Your task to perform on an android device: change the clock display to digital Image 0: 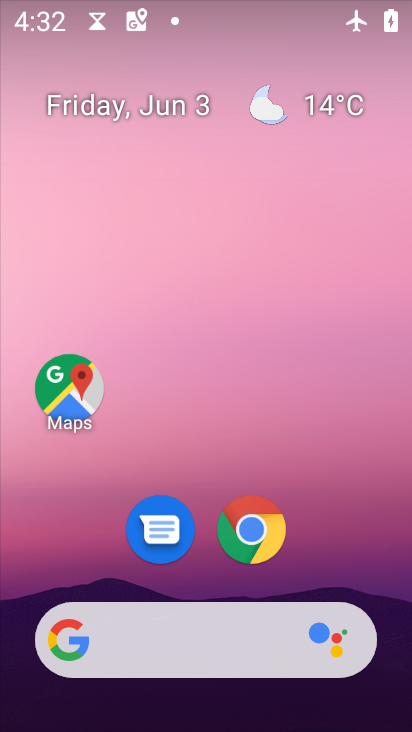
Step 0: drag from (336, 584) to (391, 58)
Your task to perform on an android device: change the clock display to digital Image 1: 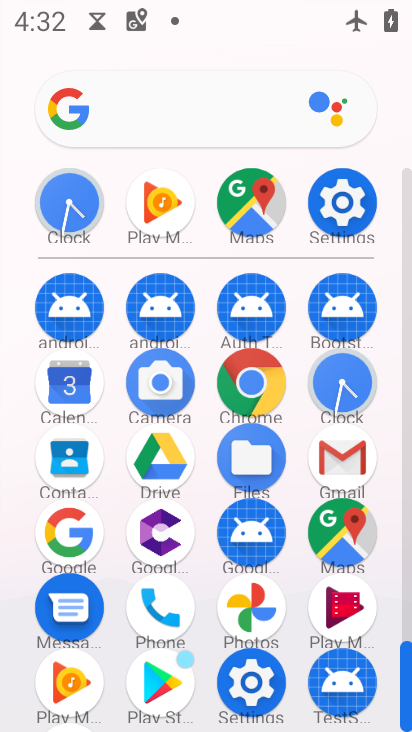
Step 1: click (344, 417)
Your task to perform on an android device: change the clock display to digital Image 2: 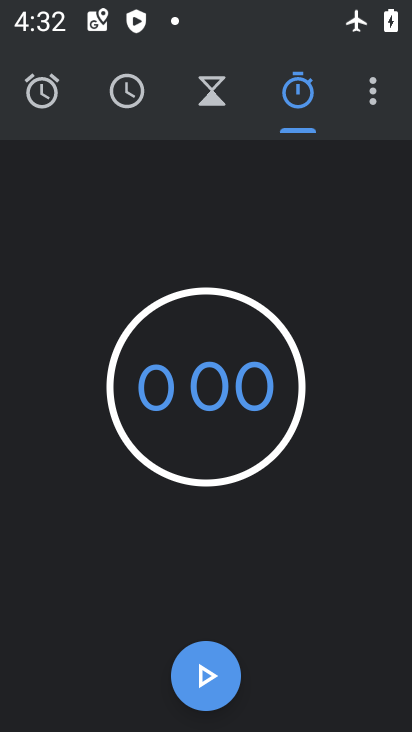
Step 2: click (366, 103)
Your task to perform on an android device: change the clock display to digital Image 3: 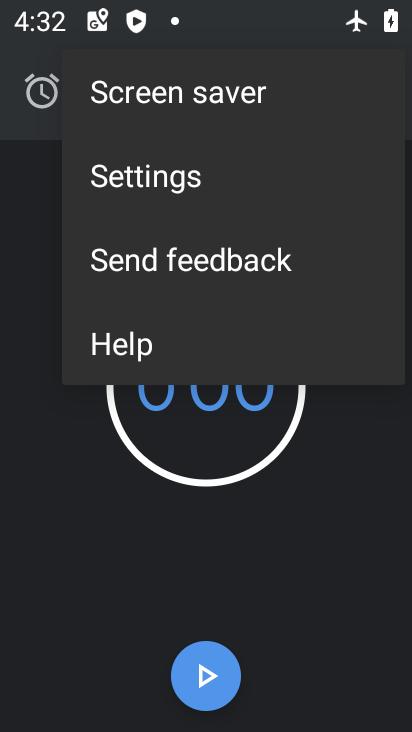
Step 3: click (170, 172)
Your task to perform on an android device: change the clock display to digital Image 4: 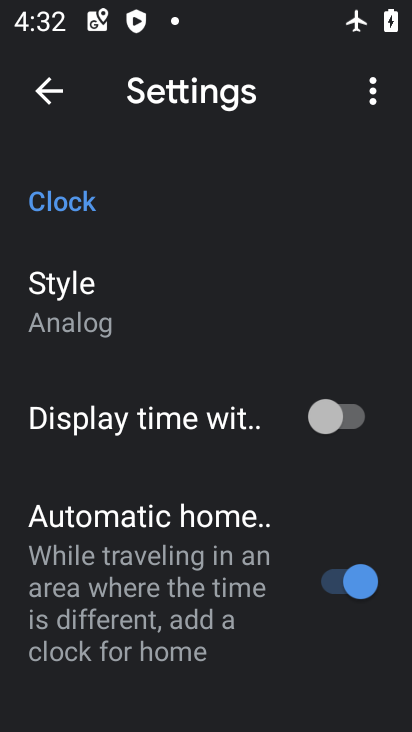
Step 4: click (135, 320)
Your task to perform on an android device: change the clock display to digital Image 5: 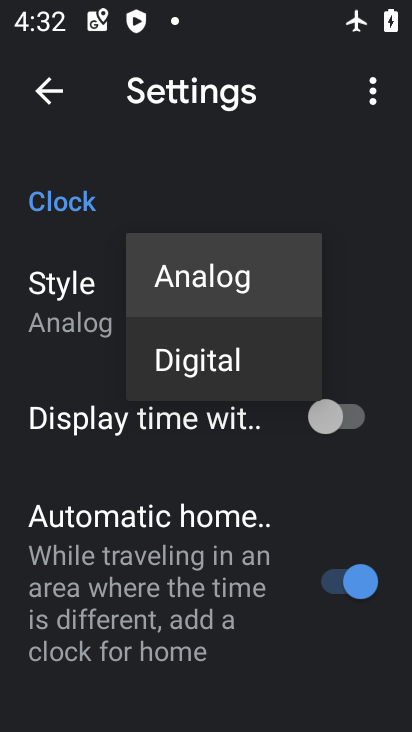
Step 5: click (209, 356)
Your task to perform on an android device: change the clock display to digital Image 6: 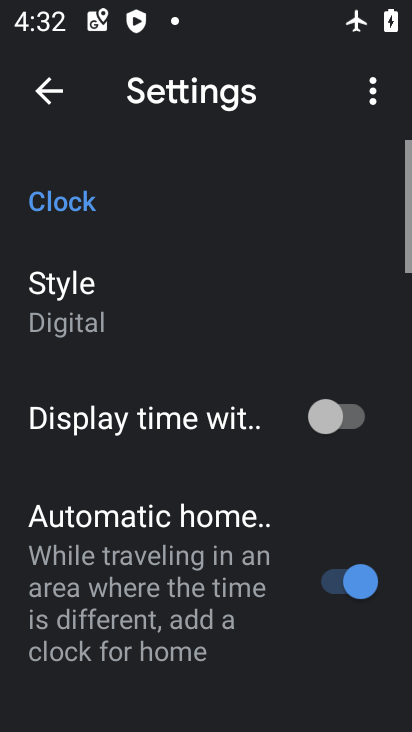
Step 6: task complete